Your task to perform on an android device: Open Google Maps and go to "Timeline" Image 0: 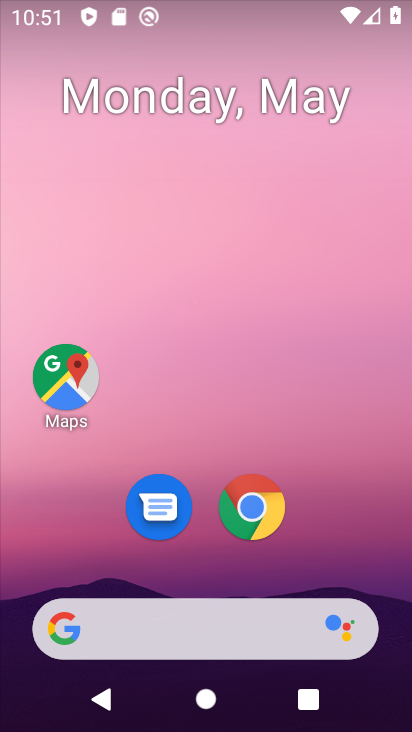
Step 0: click (74, 401)
Your task to perform on an android device: Open Google Maps and go to "Timeline" Image 1: 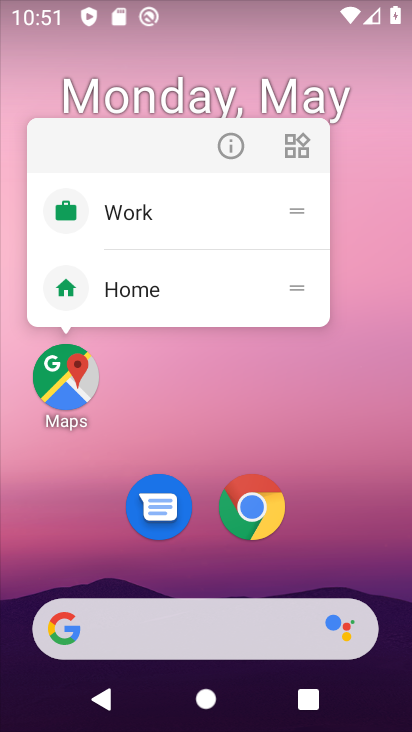
Step 1: click (74, 401)
Your task to perform on an android device: Open Google Maps and go to "Timeline" Image 2: 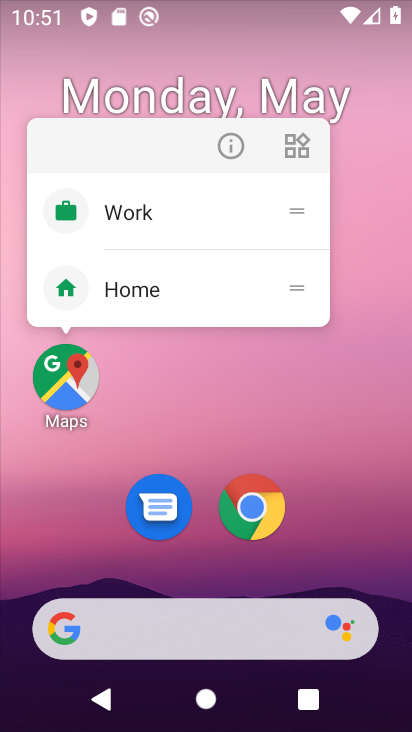
Step 2: click (67, 385)
Your task to perform on an android device: Open Google Maps and go to "Timeline" Image 3: 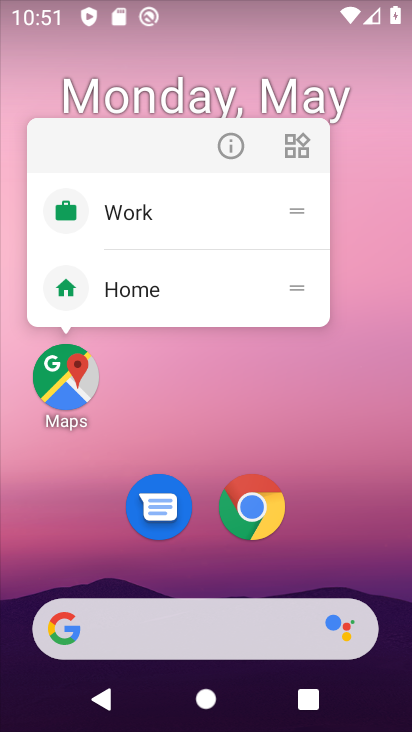
Step 3: click (65, 402)
Your task to perform on an android device: Open Google Maps and go to "Timeline" Image 4: 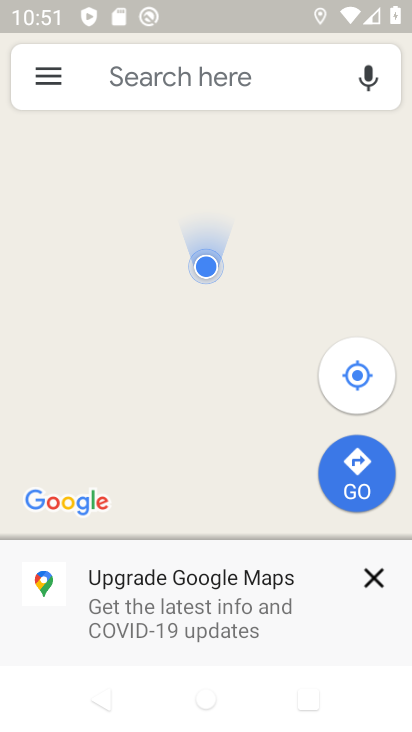
Step 4: click (53, 84)
Your task to perform on an android device: Open Google Maps and go to "Timeline" Image 5: 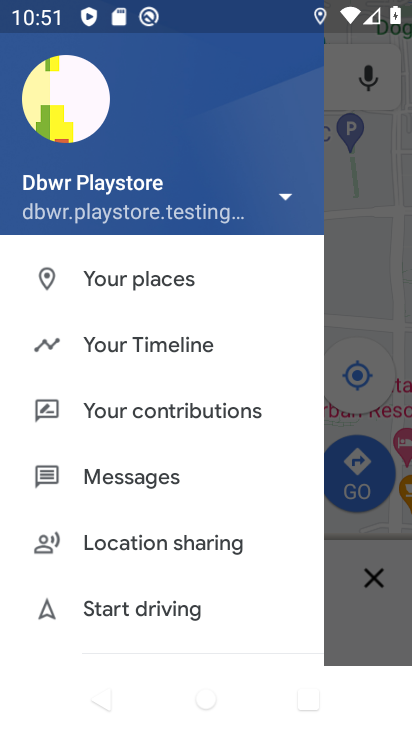
Step 5: click (102, 349)
Your task to perform on an android device: Open Google Maps and go to "Timeline" Image 6: 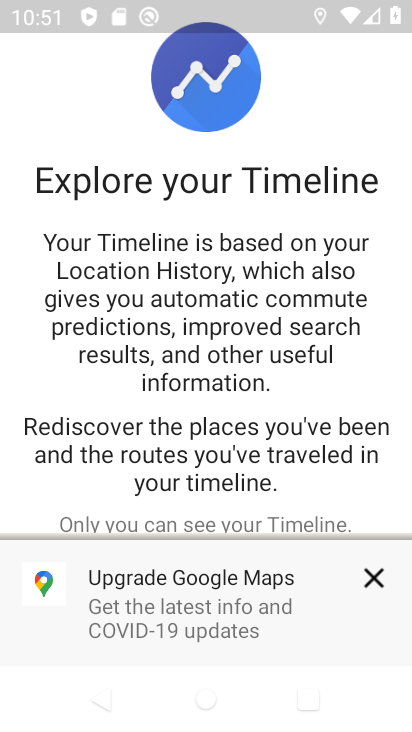
Step 6: click (380, 585)
Your task to perform on an android device: Open Google Maps and go to "Timeline" Image 7: 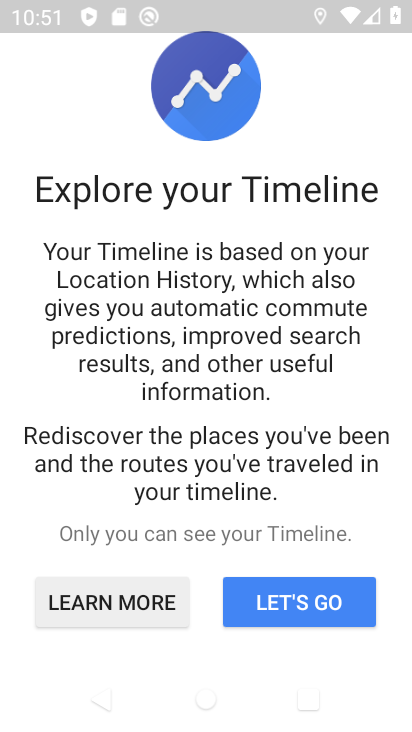
Step 7: click (287, 603)
Your task to perform on an android device: Open Google Maps and go to "Timeline" Image 8: 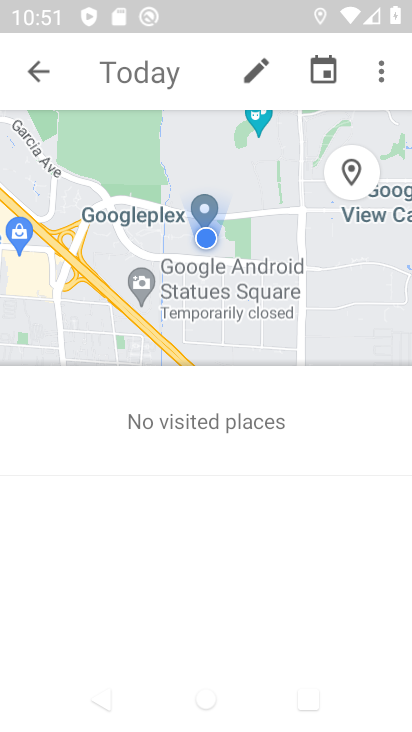
Step 8: task complete